Your task to perform on an android device: turn off priority inbox in the gmail app Image 0: 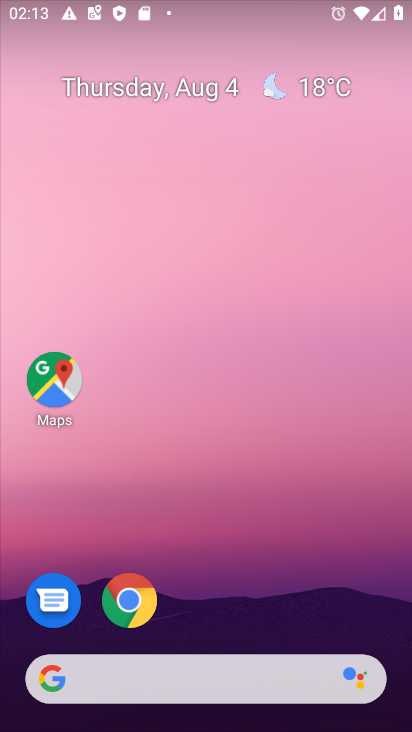
Step 0: press home button
Your task to perform on an android device: turn off priority inbox in the gmail app Image 1: 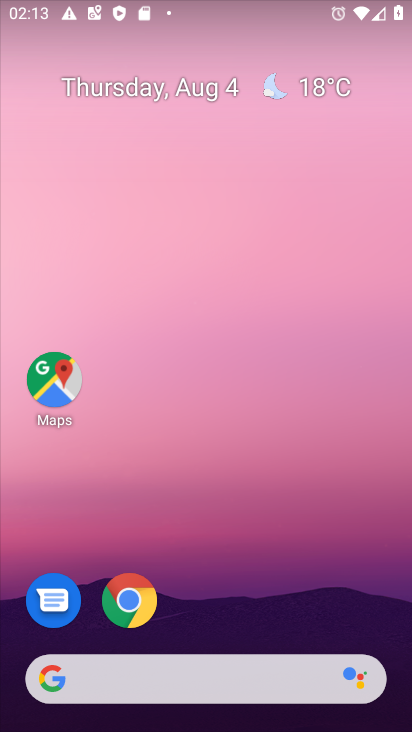
Step 1: drag from (146, 674) to (246, 104)
Your task to perform on an android device: turn off priority inbox in the gmail app Image 2: 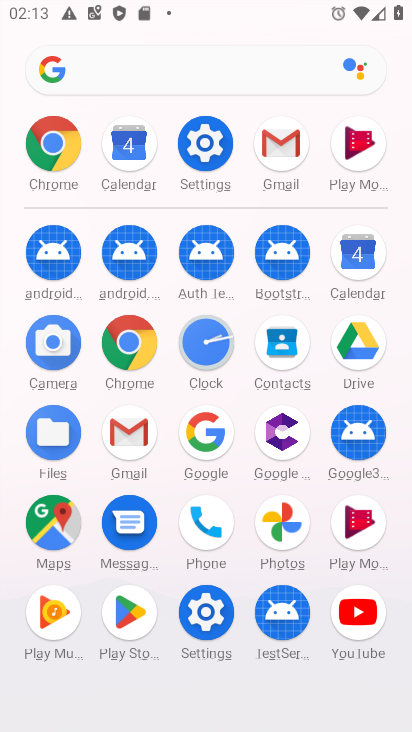
Step 2: click (281, 153)
Your task to perform on an android device: turn off priority inbox in the gmail app Image 3: 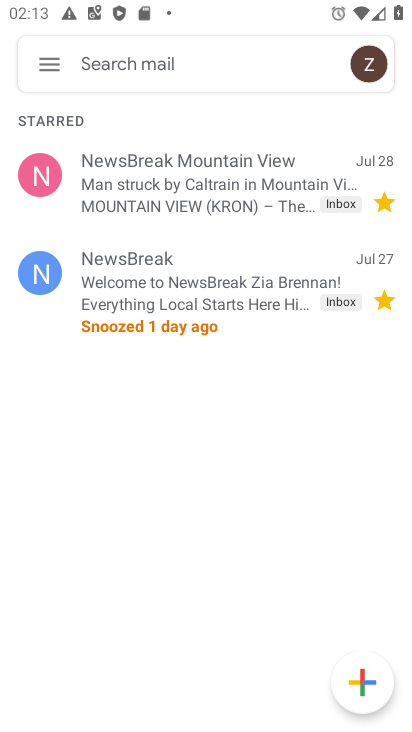
Step 3: click (57, 71)
Your task to perform on an android device: turn off priority inbox in the gmail app Image 4: 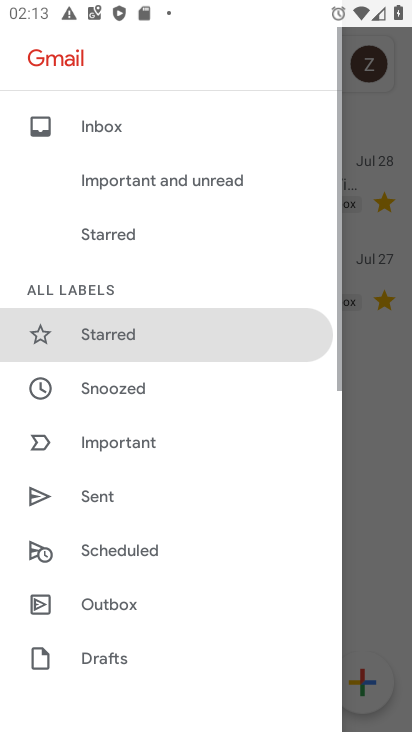
Step 4: drag from (149, 620) to (265, 179)
Your task to perform on an android device: turn off priority inbox in the gmail app Image 5: 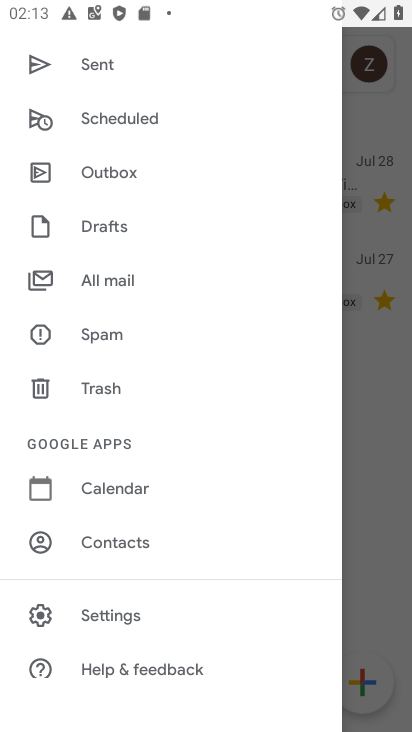
Step 5: click (123, 612)
Your task to perform on an android device: turn off priority inbox in the gmail app Image 6: 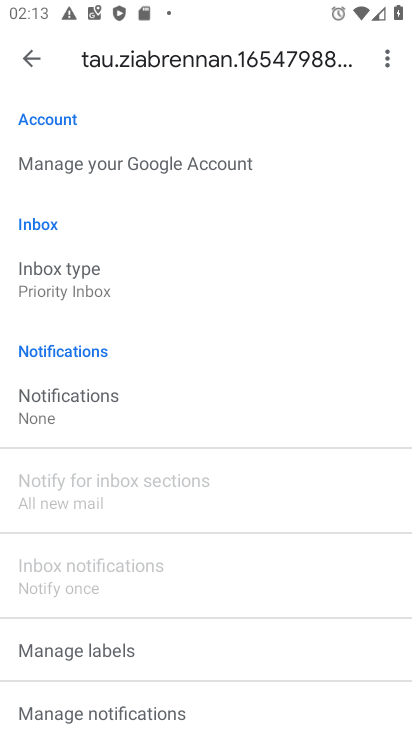
Step 6: click (73, 285)
Your task to perform on an android device: turn off priority inbox in the gmail app Image 7: 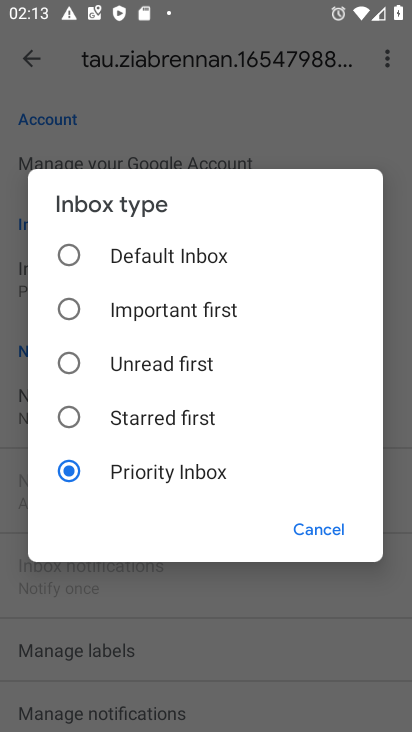
Step 7: click (63, 255)
Your task to perform on an android device: turn off priority inbox in the gmail app Image 8: 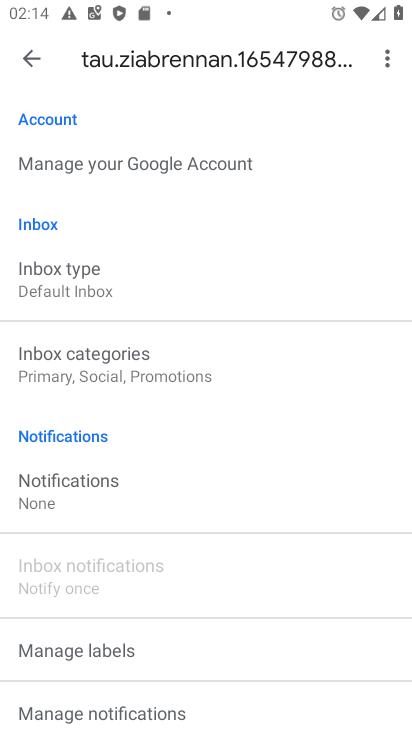
Step 8: task complete